Your task to perform on an android device: install app "Contacts" Image 0: 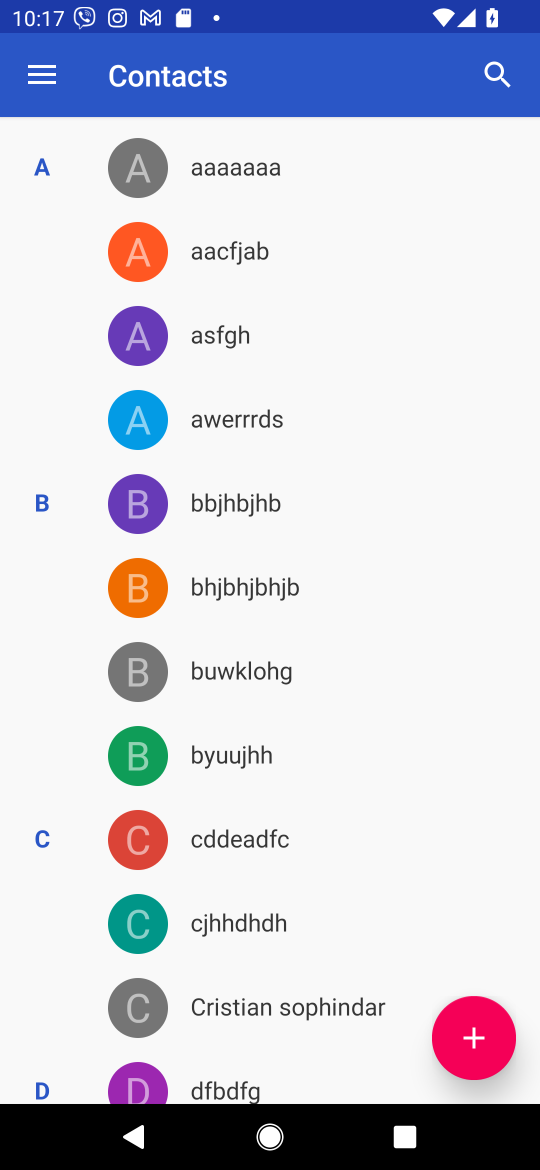
Step 0: task complete